Your task to perform on an android device: Open settings on Google Maps Image 0: 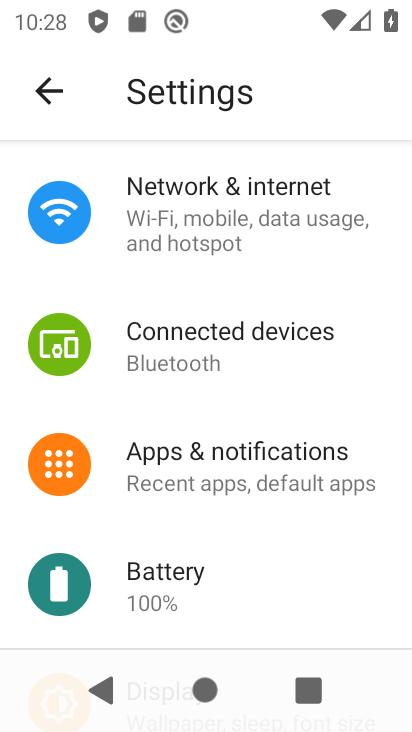
Step 0: press home button
Your task to perform on an android device: Open settings on Google Maps Image 1: 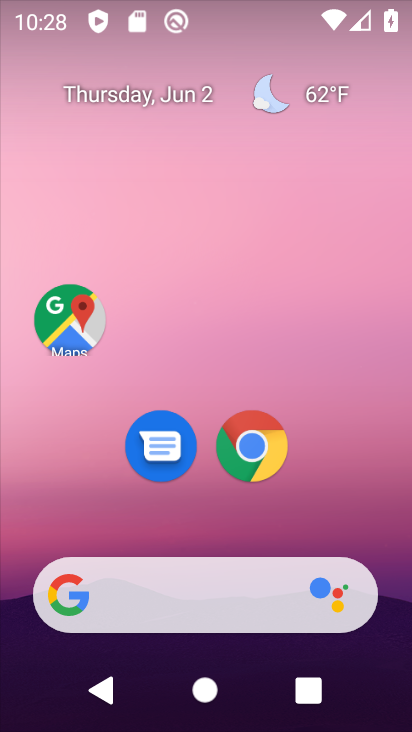
Step 1: click (69, 334)
Your task to perform on an android device: Open settings on Google Maps Image 2: 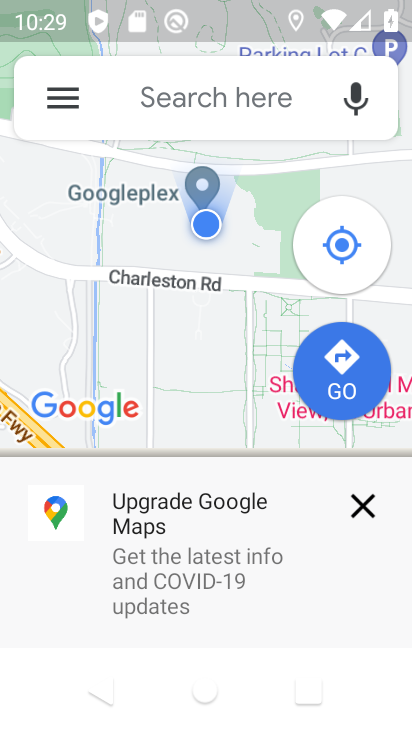
Step 2: click (62, 90)
Your task to perform on an android device: Open settings on Google Maps Image 3: 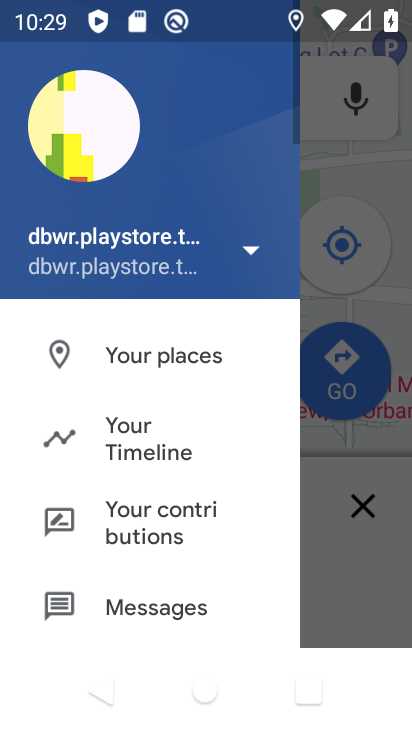
Step 3: drag from (169, 558) to (162, 45)
Your task to perform on an android device: Open settings on Google Maps Image 4: 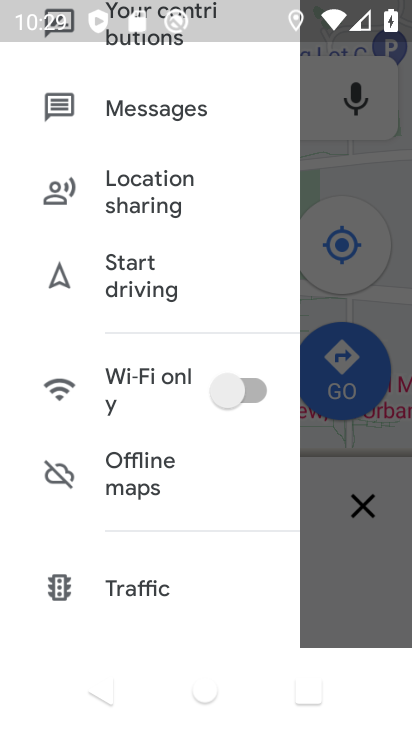
Step 4: drag from (120, 532) to (136, 254)
Your task to perform on an android device: Open settings on Google Maps Image 5: 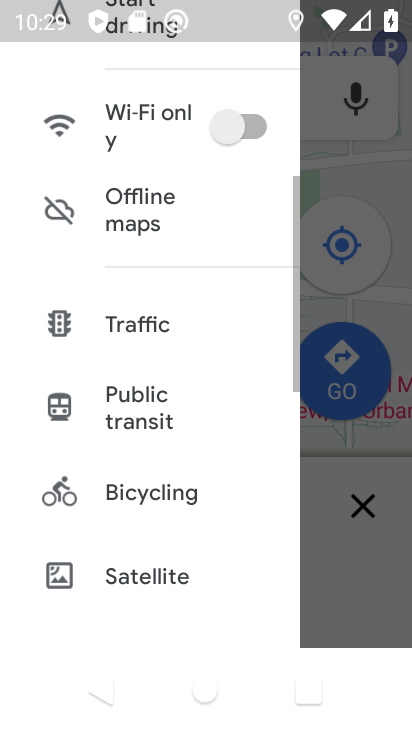
Step 5: click (138, 232)
Your task to perform on an android device: Open settings on Google Maps Image 6: 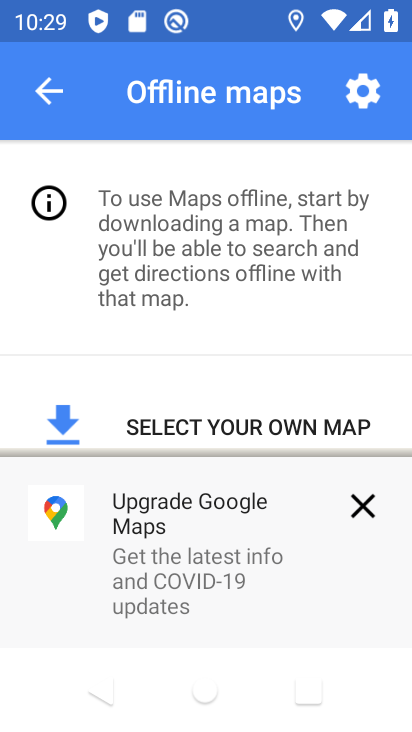
Step 6: click (53, 88)
Your task to perform on an android device: Open settings on Google Maps Image 7: 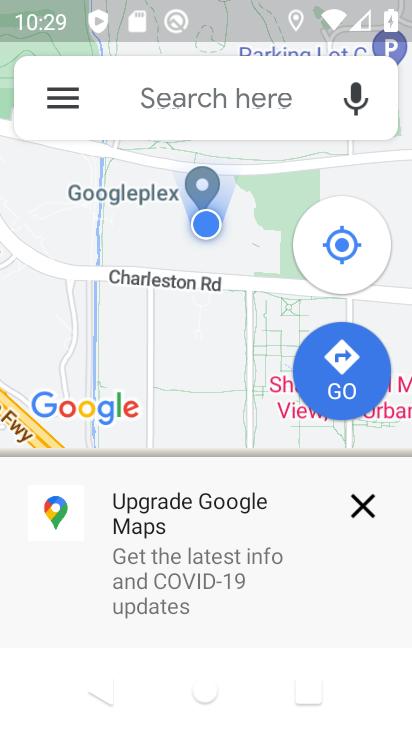
Step 7: click (53, 88)
Your task to perform on an android device: Open settings on Google Maps Image 8: 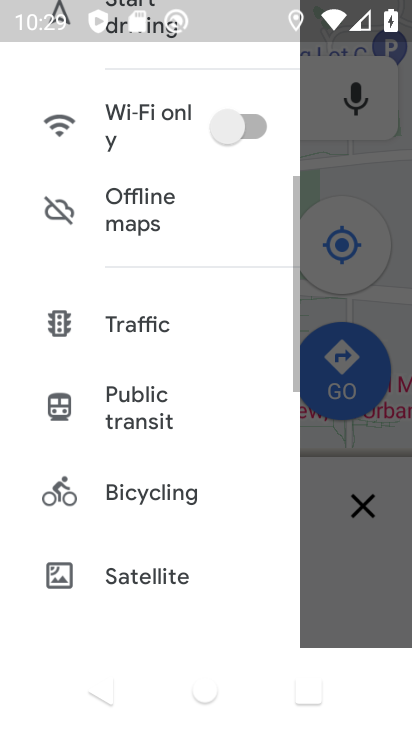
Step 8: drag from (118, 596) to (195, 187)
Your task to perform on an android device: Open settings on Google Maps Image 9: 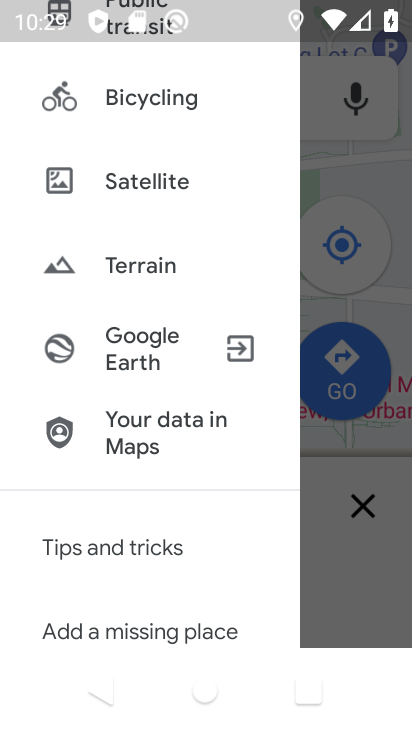
Step 9: drag from (120, 562) to (203, 214)
Your task to perform on an android device: Open settings on Google Maps Image 10: 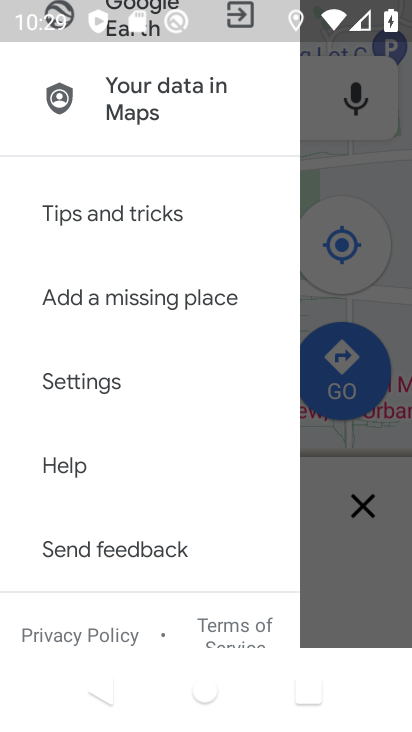
Step 10: click (109, 377)
Your task to perform on an android device: Open settings on Google Maps Image 11: 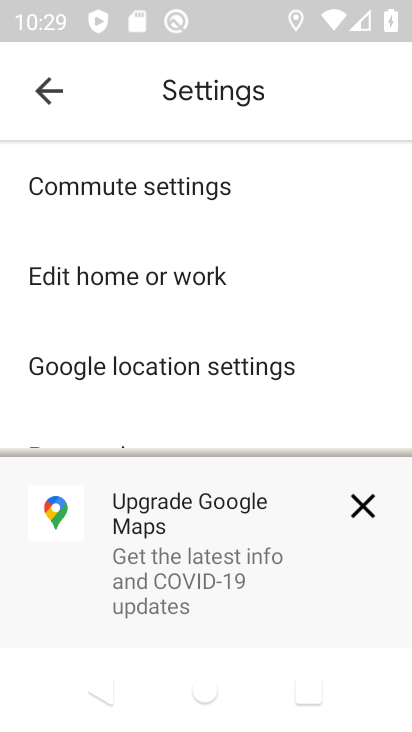
Step 11: task complete